Your task to perform on an android device: toggle improve location accuracy Image 0: 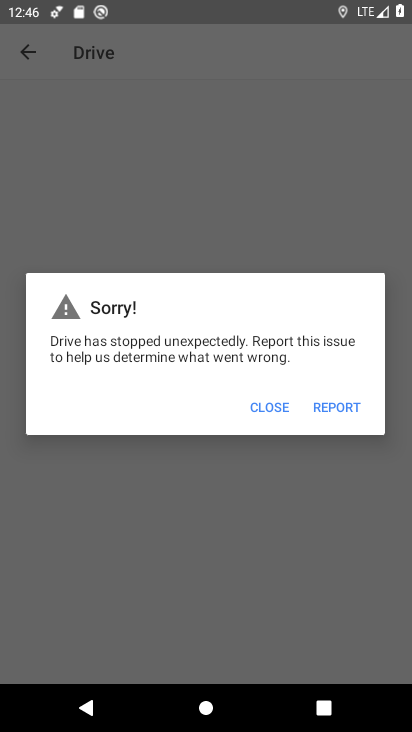
Step 0: press home button
Your task to perform on an android device: toggle improve location accuracy Image 1: 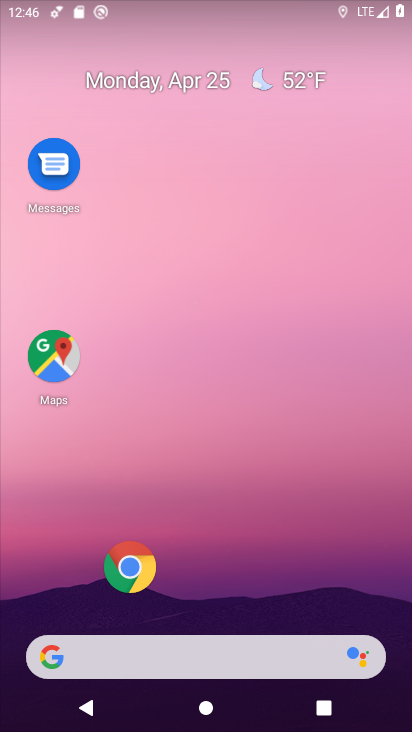
Step 1: drag from (257, 532) to (277, 111)
Your task to perform on an android device: toggle improve location accuracy Image 2: 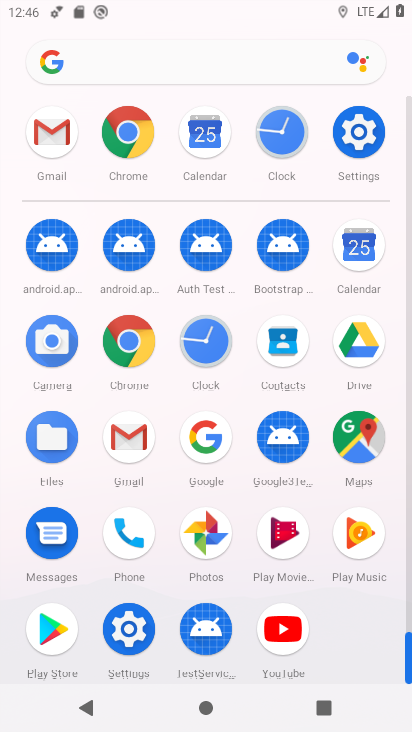
Step 2: click (367, 148)
Your task to perform on an android device: toggle improve location accuracy Image 3: 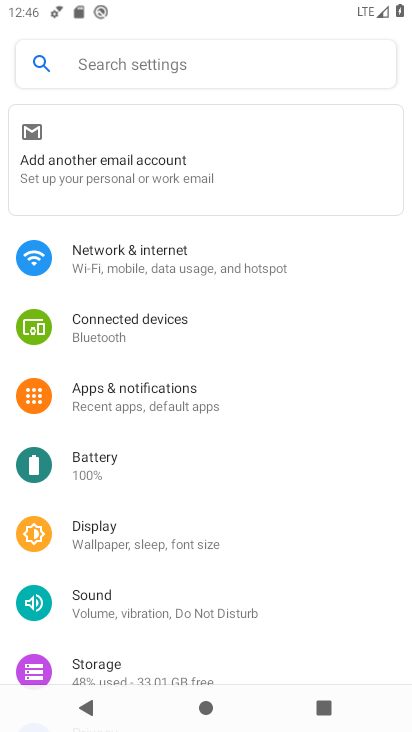
Step 3: drag from (177, 543) to (217, 222)
Your task to perform on an android device: toggle improve location accuracy Image 4: 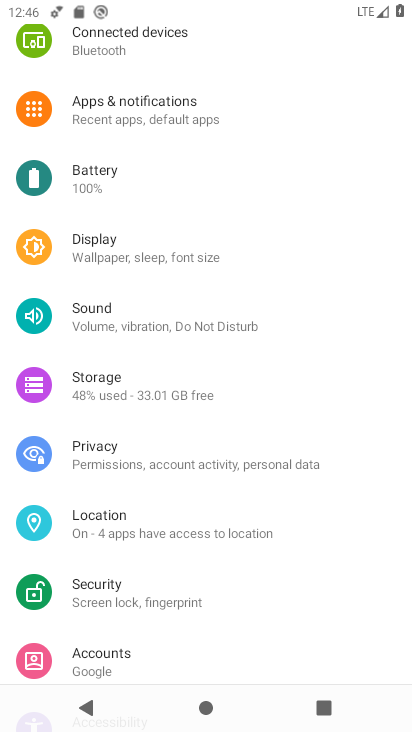
Step 4: click (193, 522)
Your task to perform on an android device: toggle improve location accuracy Image 5: 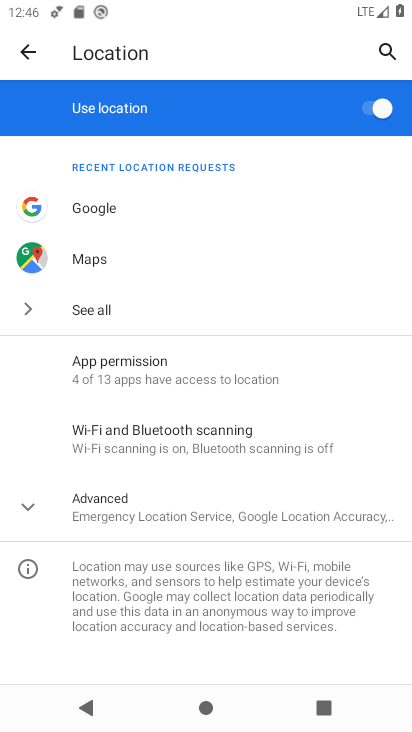
Step 5: click (198, 513)
Your task to perform on an android device: toggle improve location accuracy Image 6: 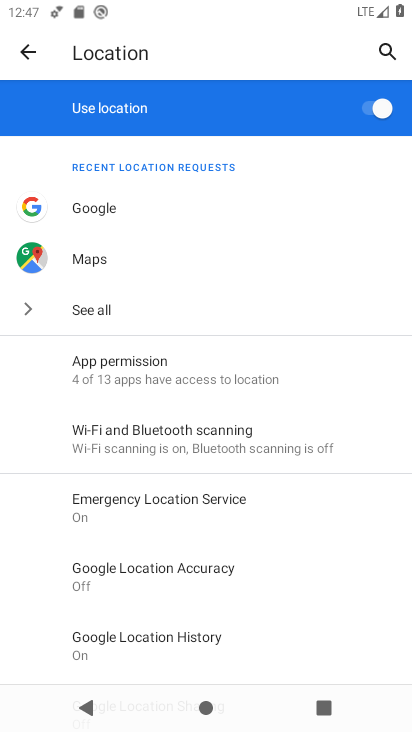
Step 6: drag from (206, 516) to (211, 253)
Your task to perform on an android device: toggle improve location accuracy Image 7: 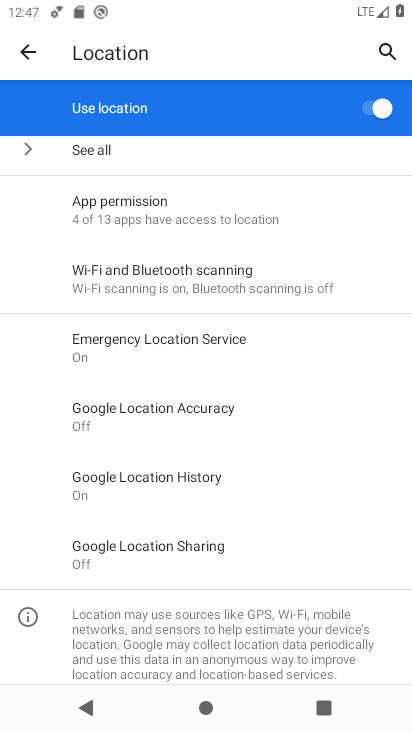
Step 7: click (210, 418)
Your task to perform on an android device: toggle improve location accuracy Image 8: 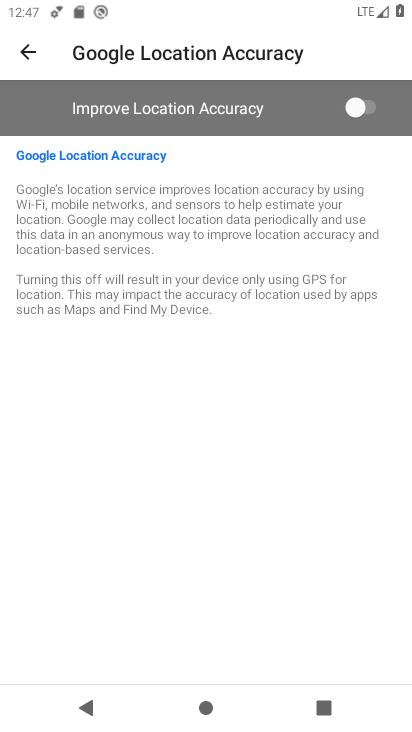
Step 8: click (368, 113)
Your task to perform on an android device: toggle improve location accuracy Image 9: 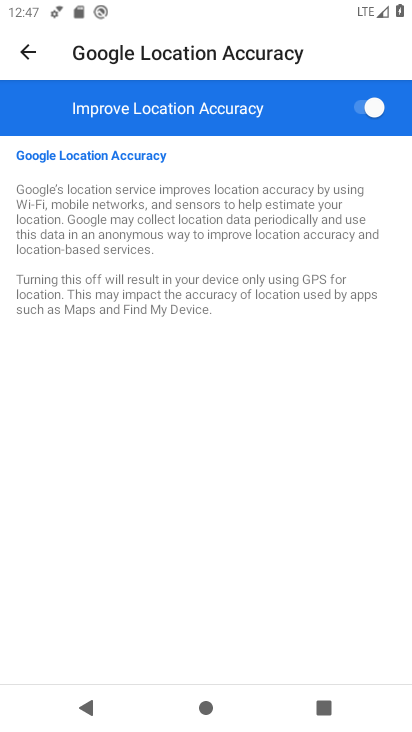
Step 9: task complete